Your task to perform on an android device: Open location settings Image 0: 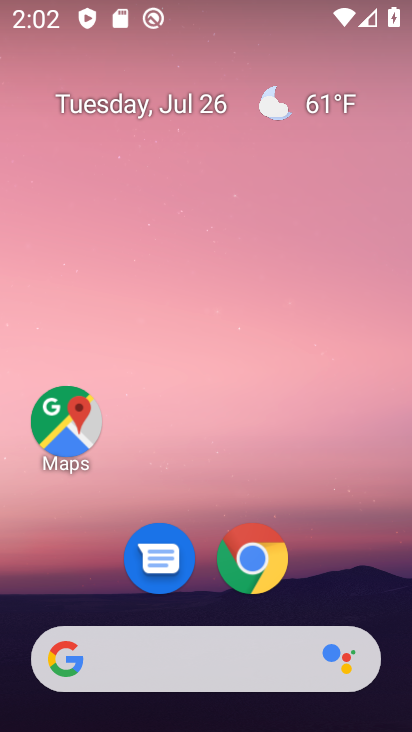
Step 0: drag from (77, 547) to (273, 3)
Your task to perform on an android device: Open location settings Image 1: 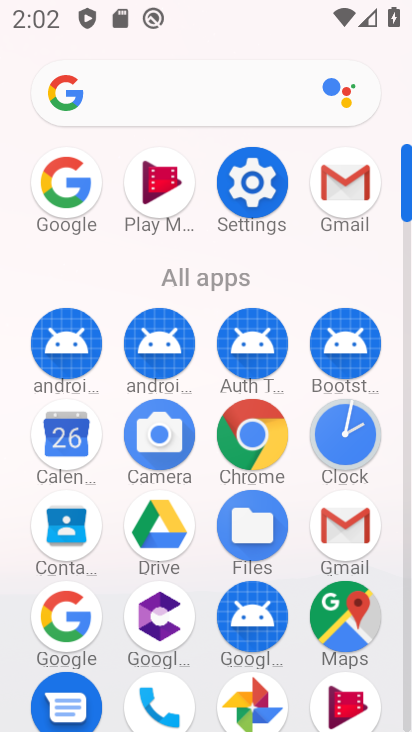
Step 1: click (240, 183)
Your task to perform on an android device: Open location settings Image 2: 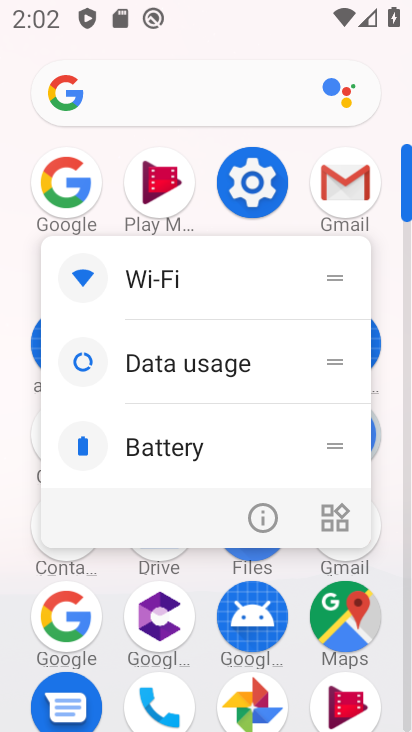
Step 2: click (245, 179)
Your task to perform on an android device: Open location settings Image 3: 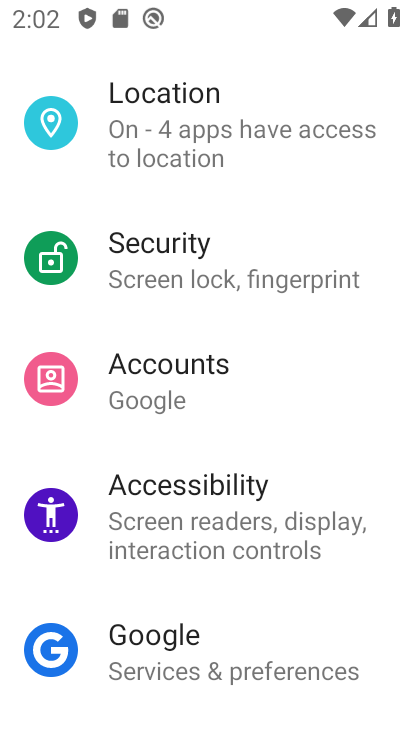
Step 3: drag from (245, 179) to (244, 558)
Your task to perform on an android device: Open location settings Image 4: 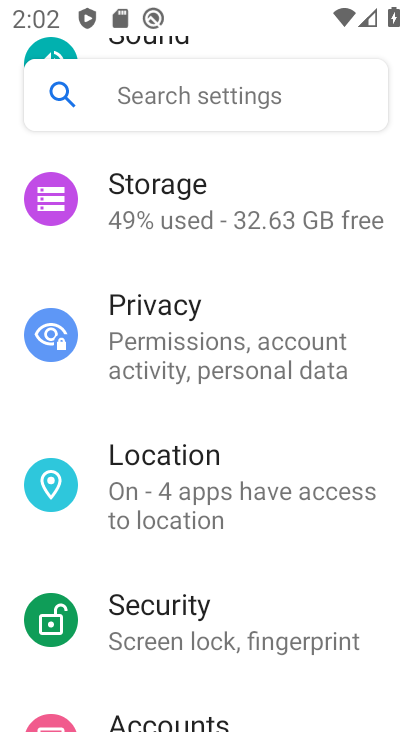
Step 4: click (161, 501)
Your task to perform on an android device: Open location settings Image 5: 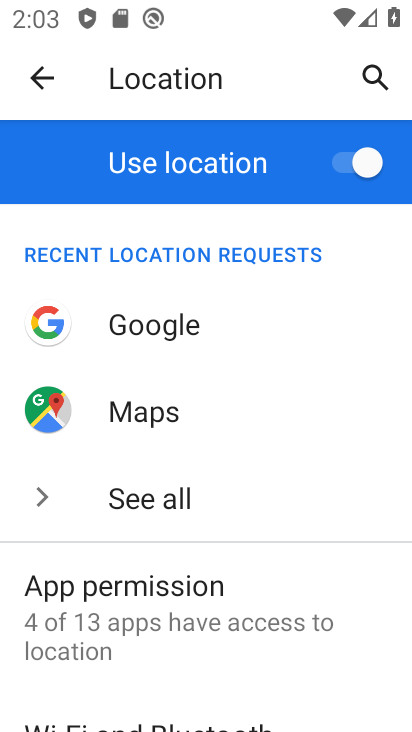
Step 5: task complete